Your task to perform on an android device: open app "Facebook Messenger" Image 0: 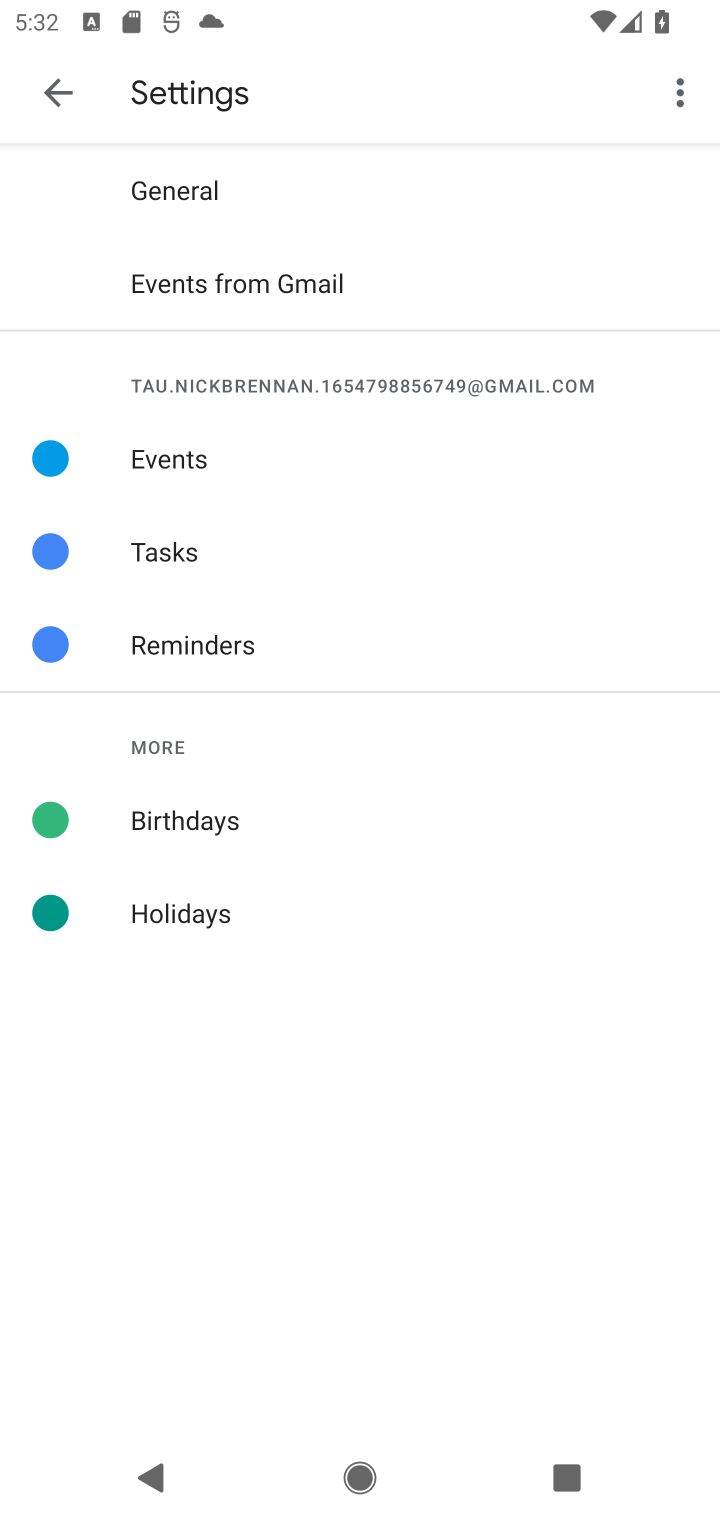
Step 0: press home button
Your task to perform on an android device: open app "Facebook Messenger" Image 1: 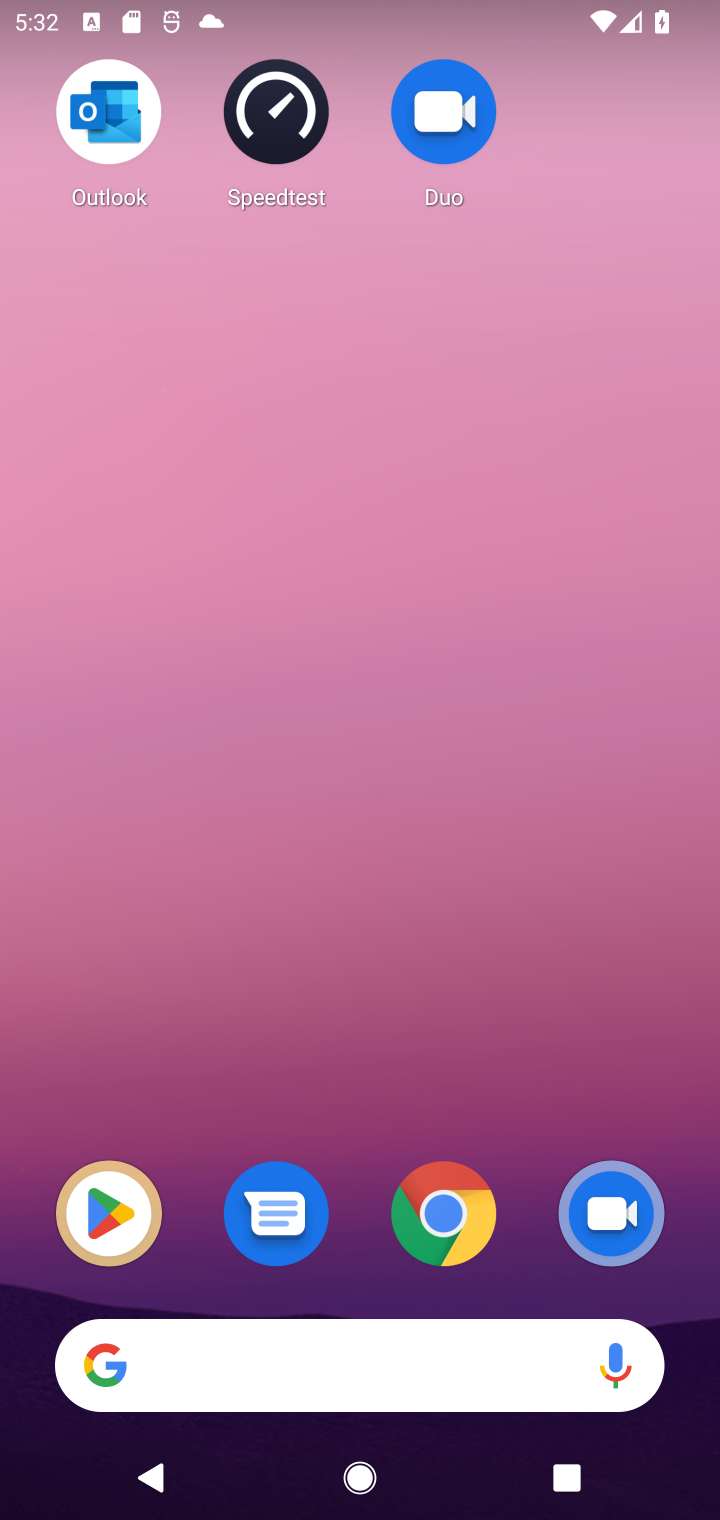
Step 1: drag from (546, 1196) to (512, 77)
Your task to perform on an android device: open app "Facebook Messenger" Image 2: 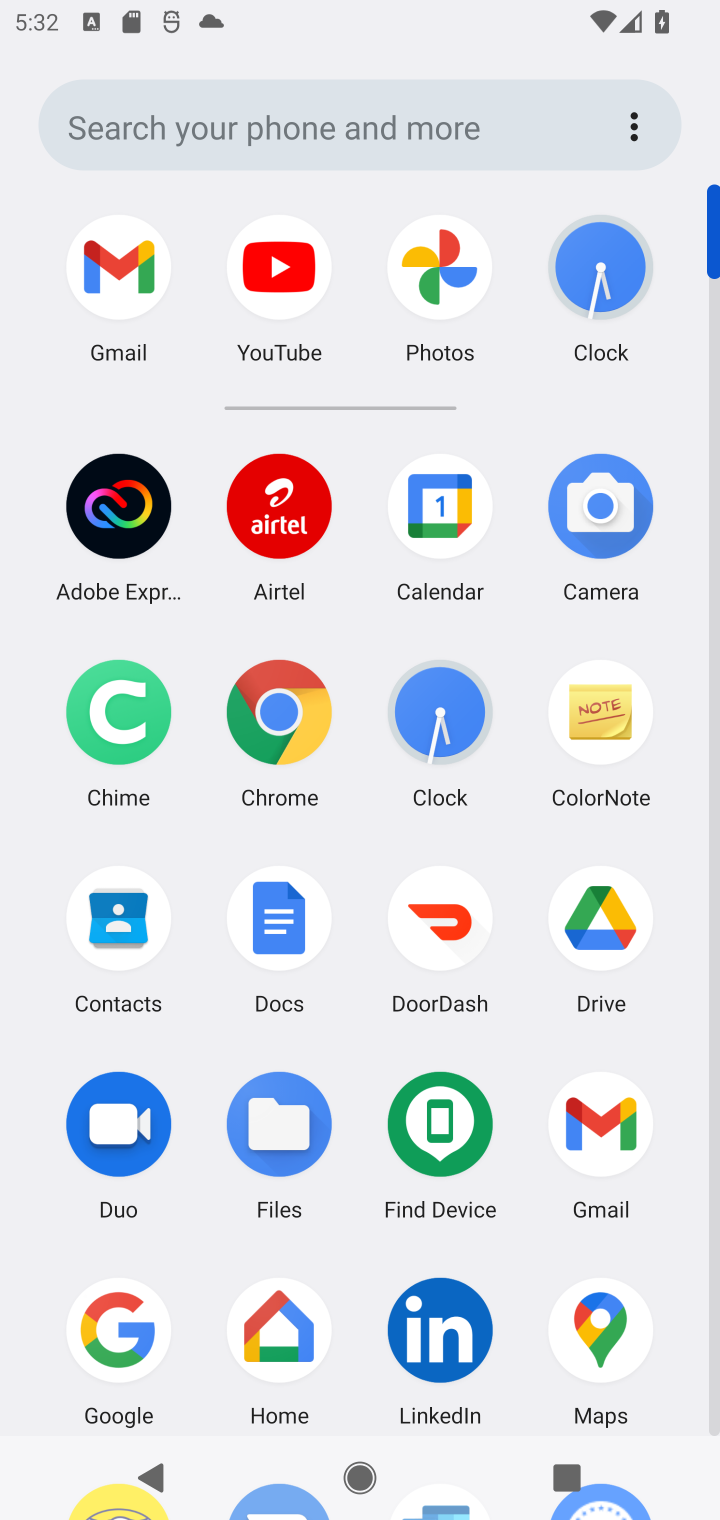
Step 2: drag from (522, 1198) to (573, 530)
Your task to perform on an android device: open app "Facebook Messenger" Image 3: 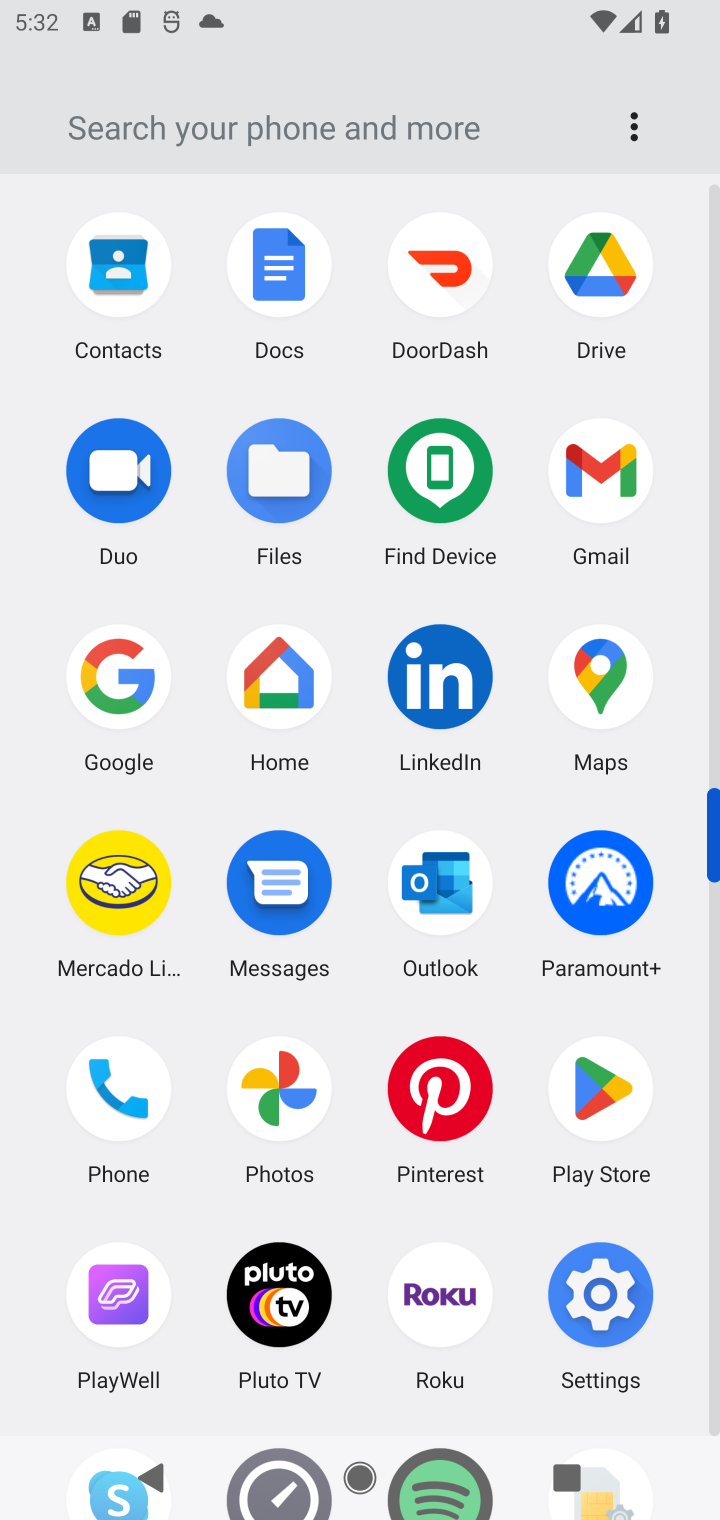
Step 3: click (594, 1095)
Your task to perform on an android device: open app "Facebook Messenger" Image 4: 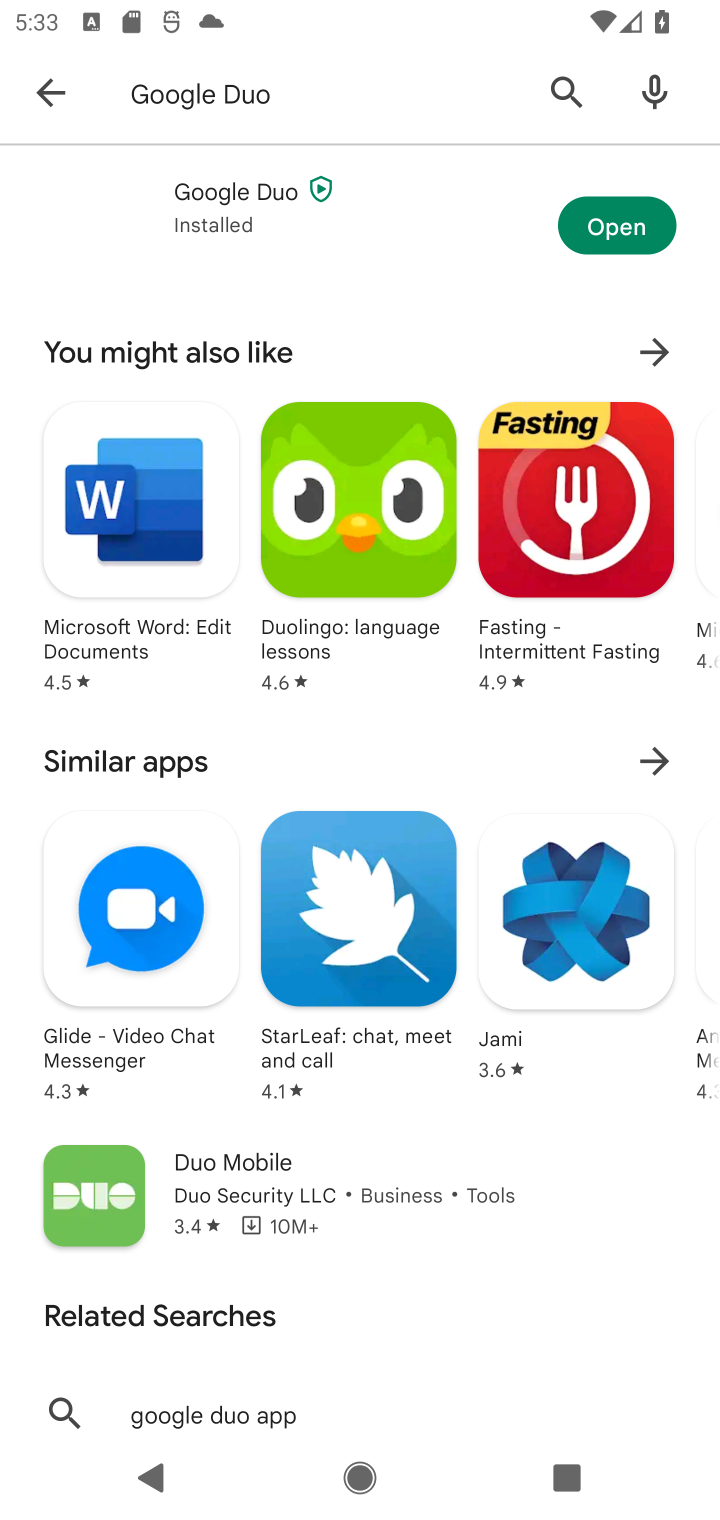
Step 4: click (331, 77)
Your task to perform on an android device: open app "Facebook Messenger" Image 5: 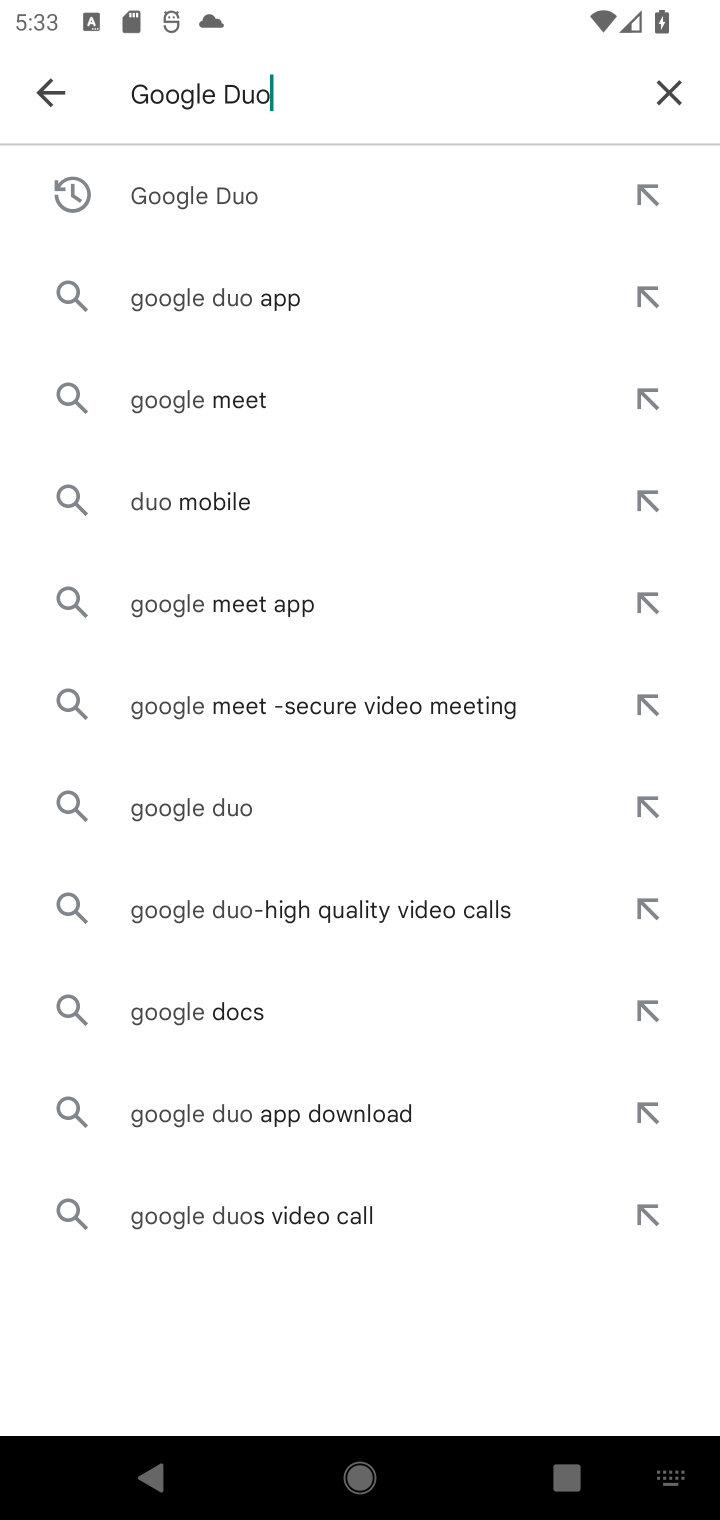
Step 5: click (672, 100)
Your task to perform on an android device: open app "Facebook Messenger" Image 6: 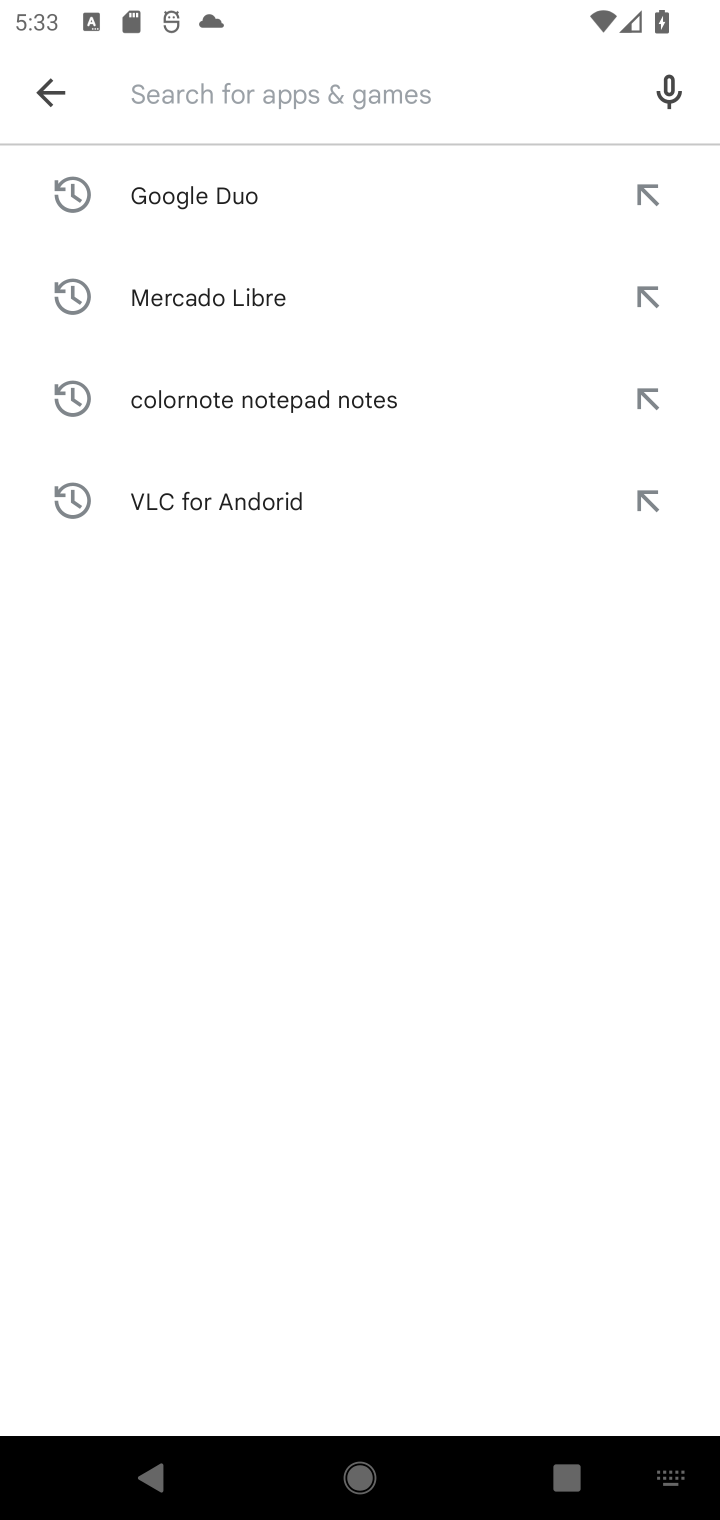
Step 6: type "Facebook Messenger"
Your task to perform on an android device: open app "Facebook Messenger" Image 7: 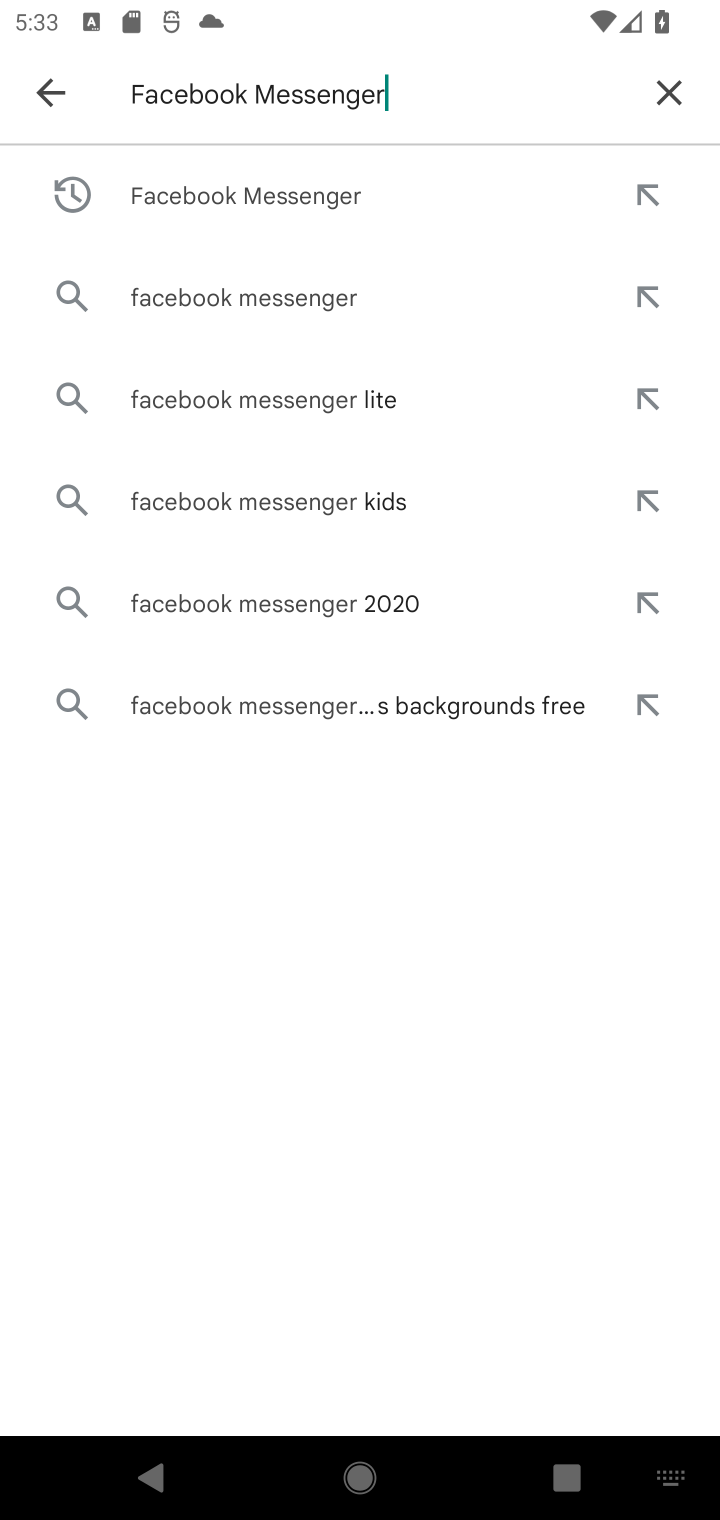
Step 7: press enter
Your task to perform on an android device: open app "Facebook Messenger" Image 8: 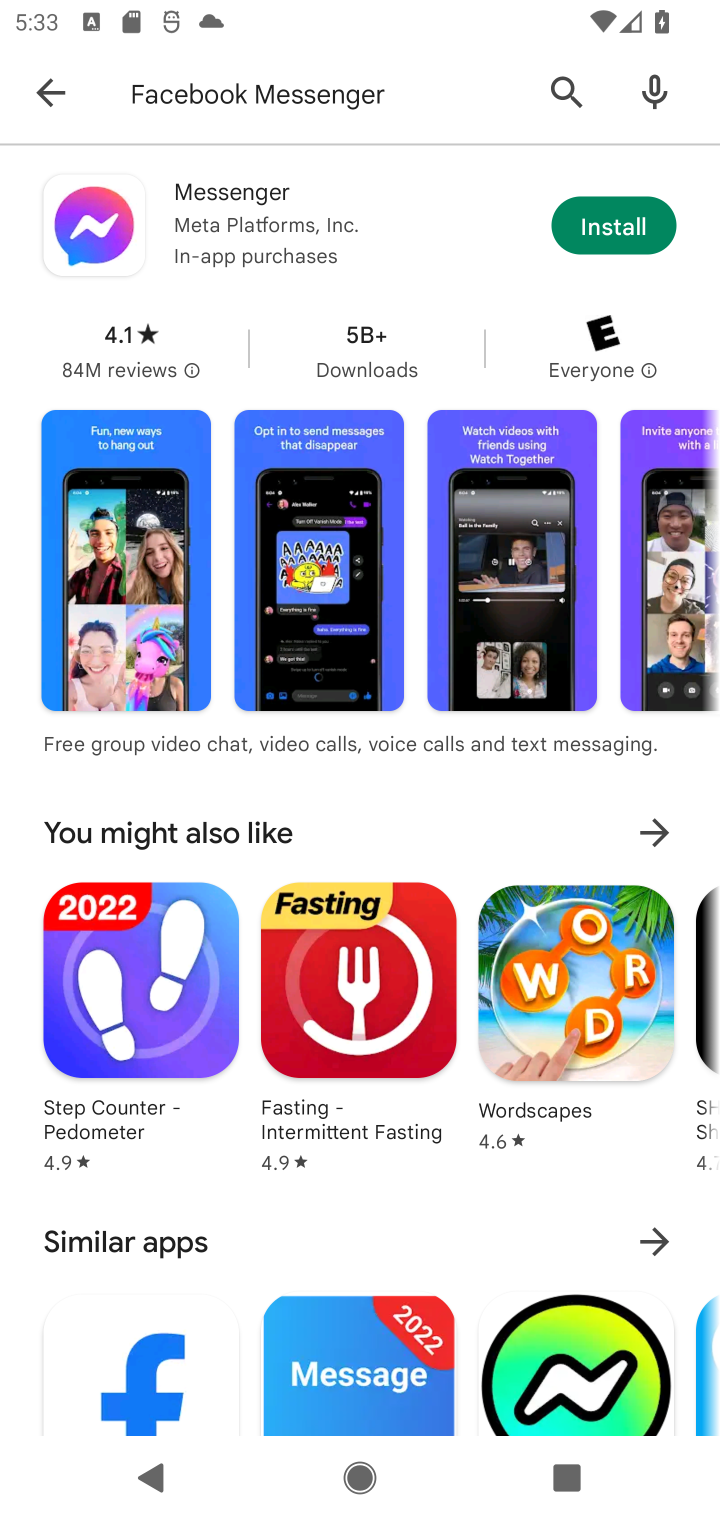
Step 8: click (402, 232)
Your task to perform on an android device: open app "Facebook Messenger" Image 9: 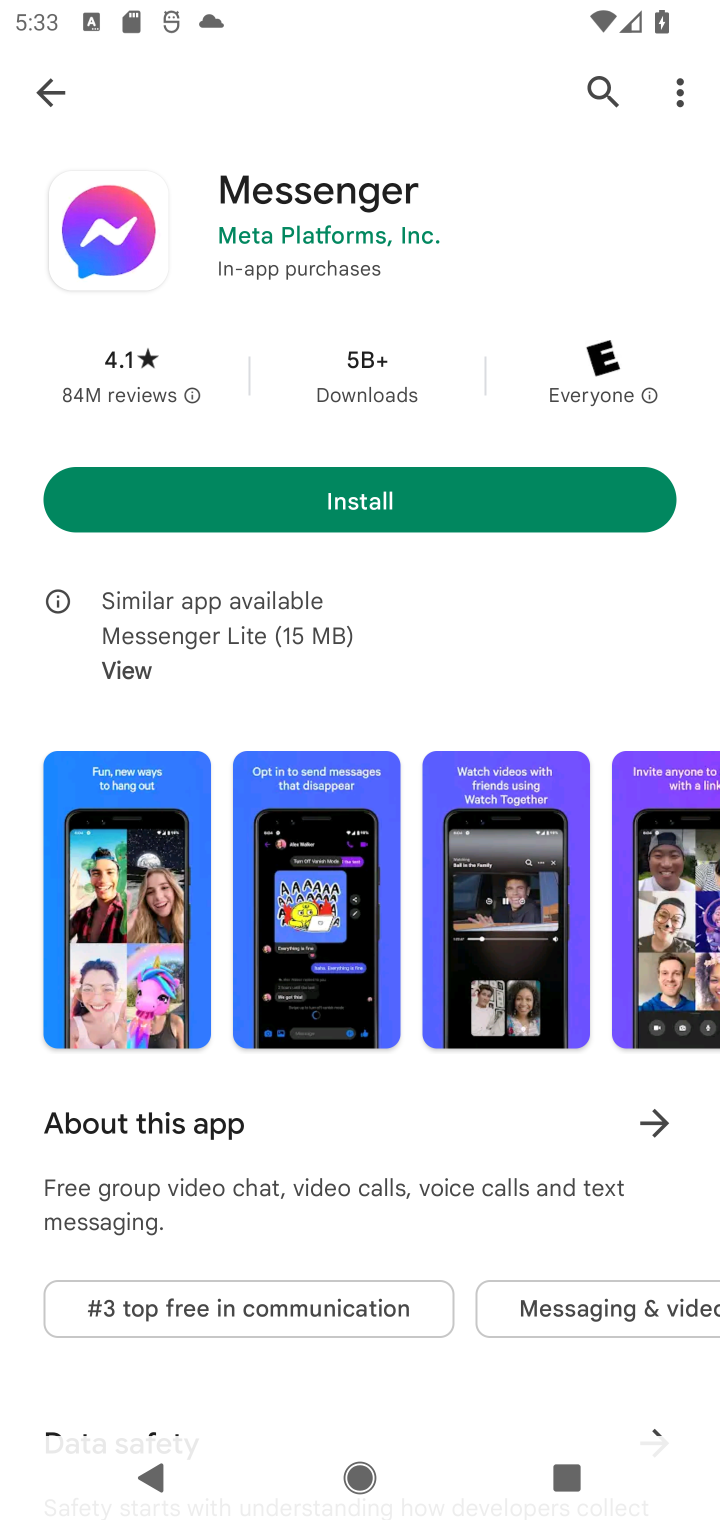
Step 9: task complete